Your task to perform on an android device: Open Wikipedia Image 0: 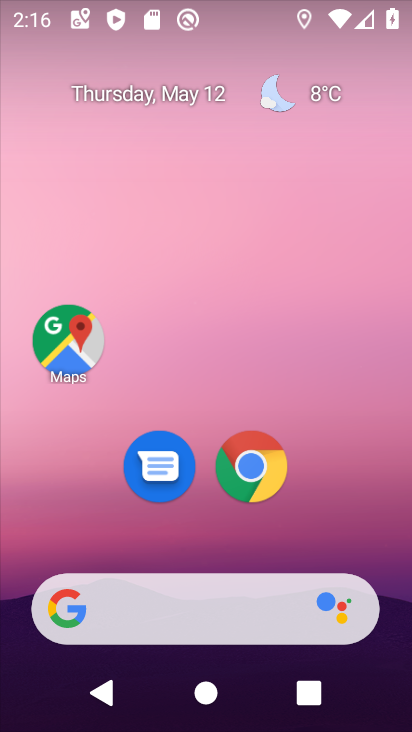
Step 0: click (264, 453)
Your task to perform on an android device: Open Wikipedia Image 1: 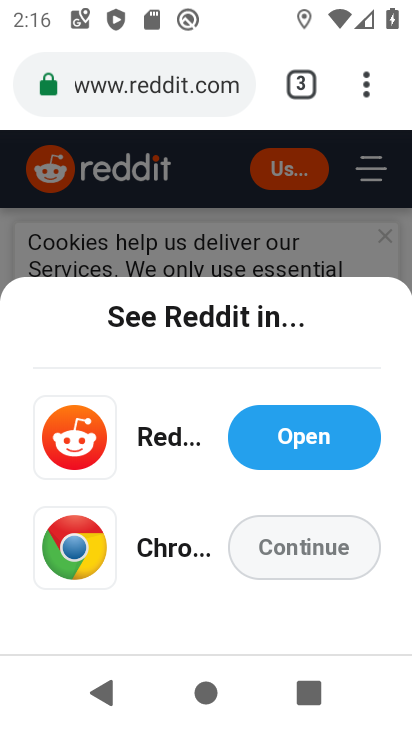
Step 1: click (304, 89)
Your task to perform on an android device: Open Wikipedia Image 2: 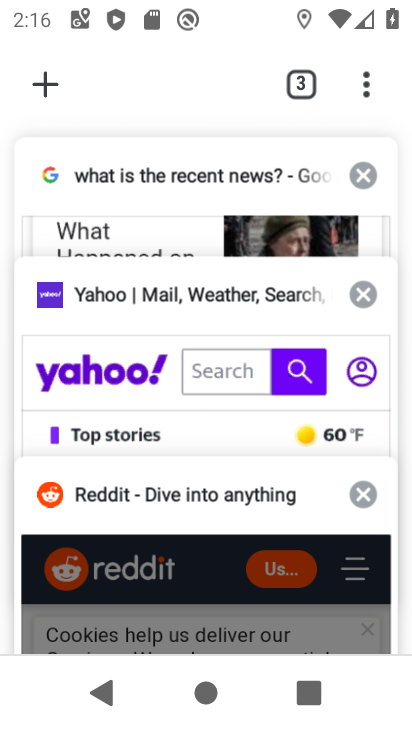
Step 2: click (42, 84)
Your task to perform on an android device: Open Wikipedia Image 3: 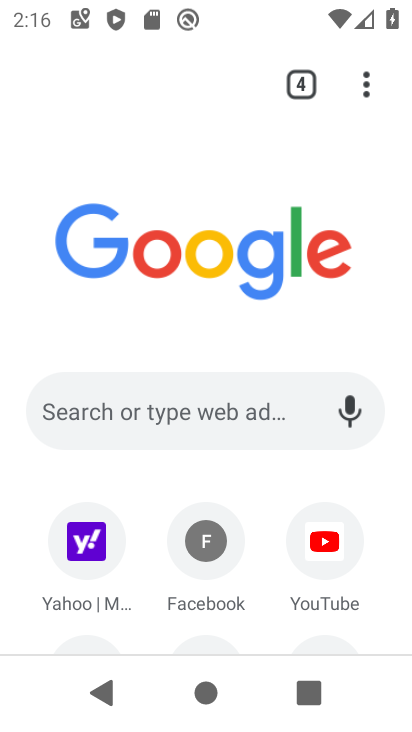
Step 3: drag from (241, 613) to (217, 277)
Your task to perform on an android device: Open Wikipedia Image 4: 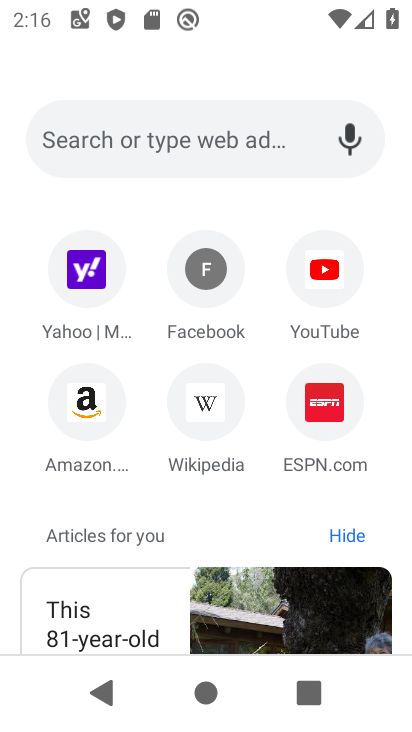
Step 4: click (211, 410)
Your task to perform on an android device: Open Wikipedia Image 5: 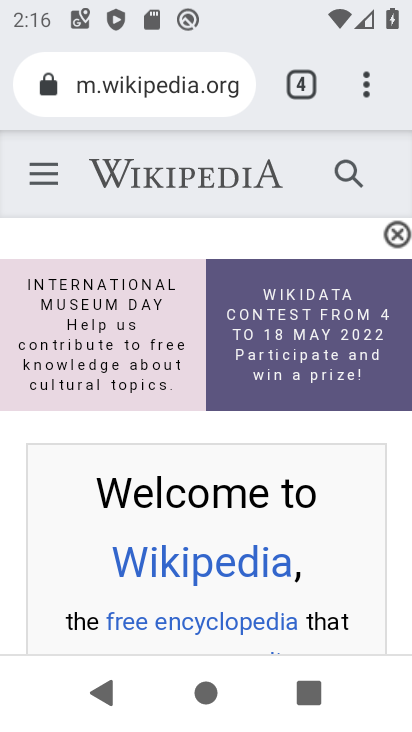
Step 5: task complete